Your task to perform on an android device: open app "eBay: The shopping marketplace" (install if not already installed) Image 0: 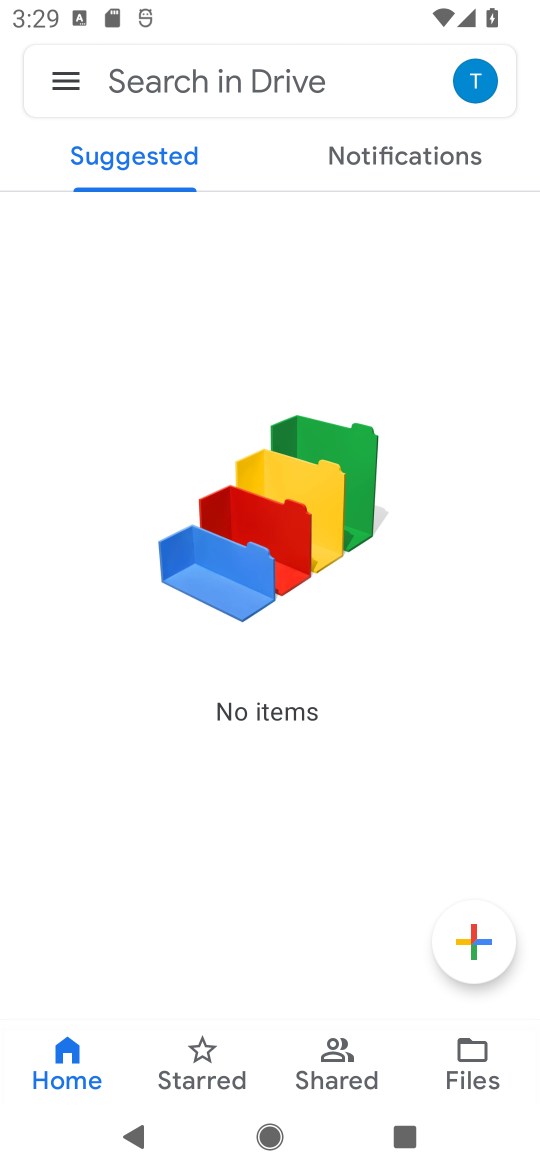
Step 0: press home button
Your task to perform on an android device: open app "eBay: The shopping marketplace" (install if not already installed) Image 1: 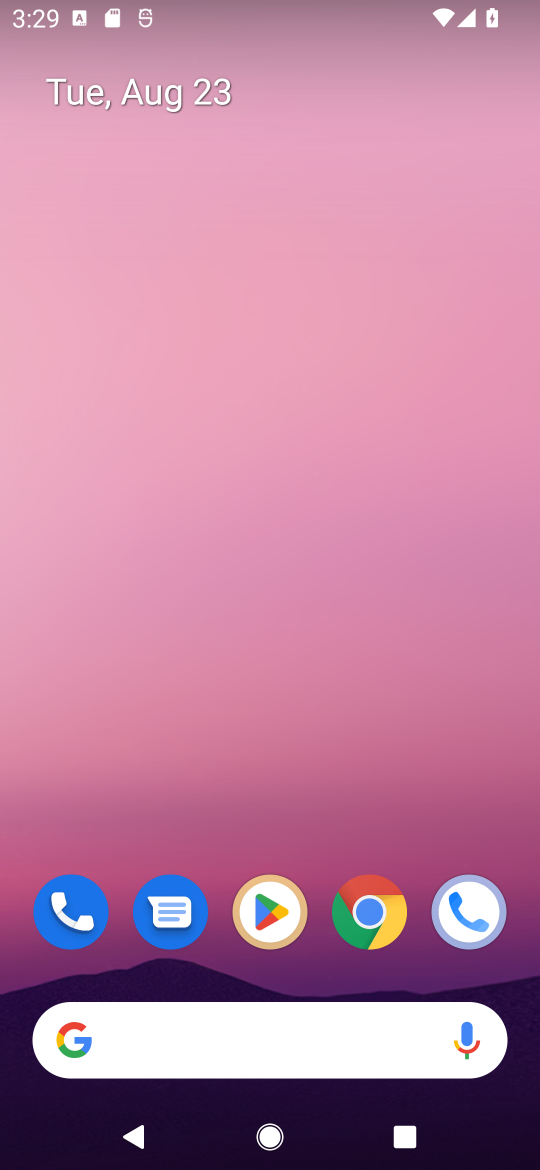
Step 1: drag from (166, 1060) to (343, 57)
Your task to perform on an android device: open app "eBay: The shopping marketplace" (install if not already installed) Image 2: 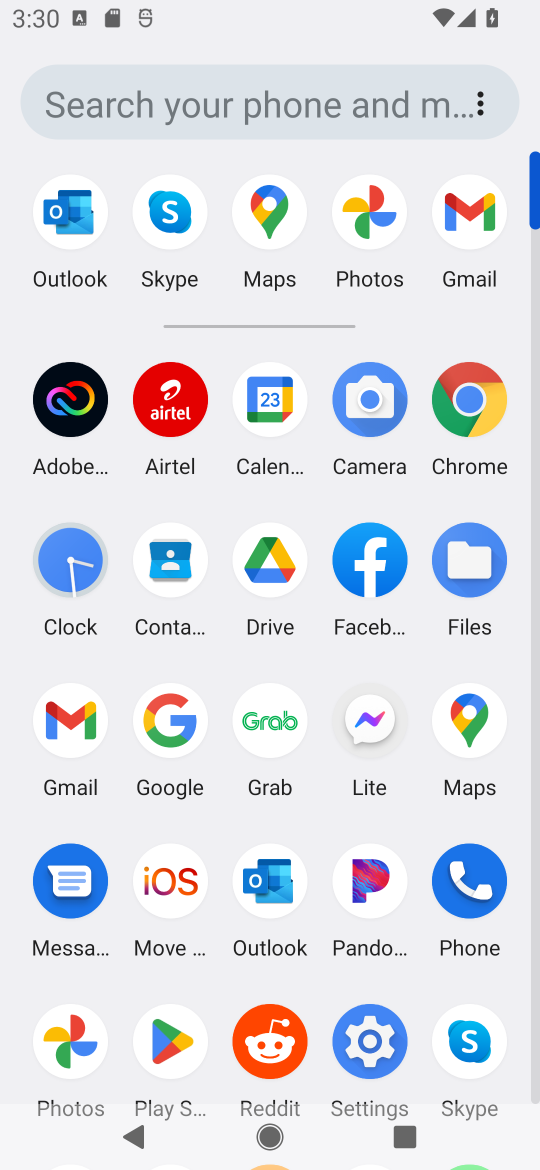
Step 2: click (170, 1045)
Your task to perform on an android device: open app "eBay: The shopping marketplace" (install if not already installed) Image 3: 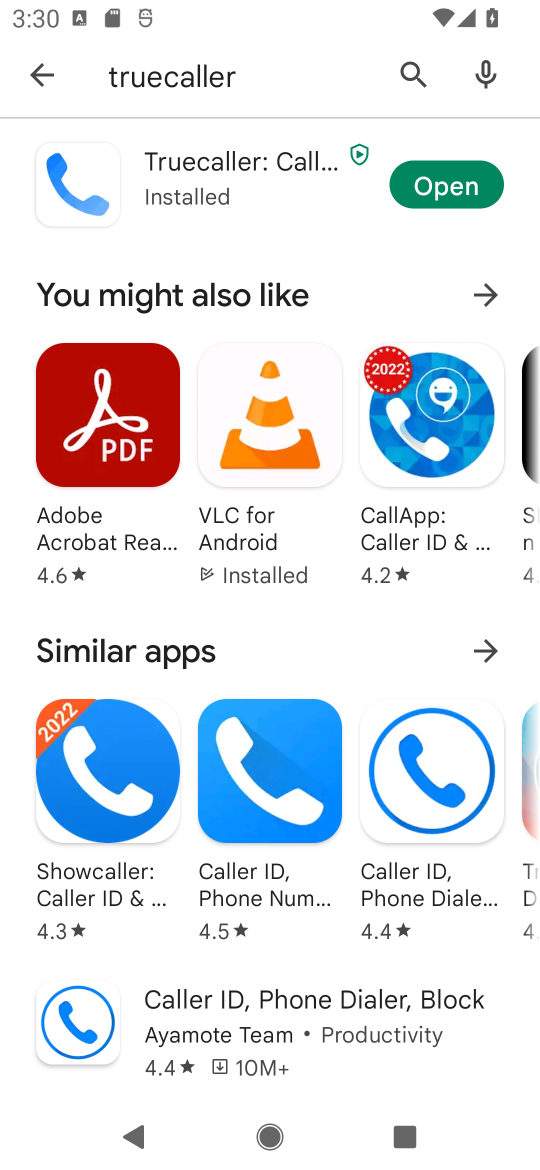
Step 3: press back button
Your task to perform on an android device: open app "eBay: The shopping marketplace" (install if not already installed) Image 4: 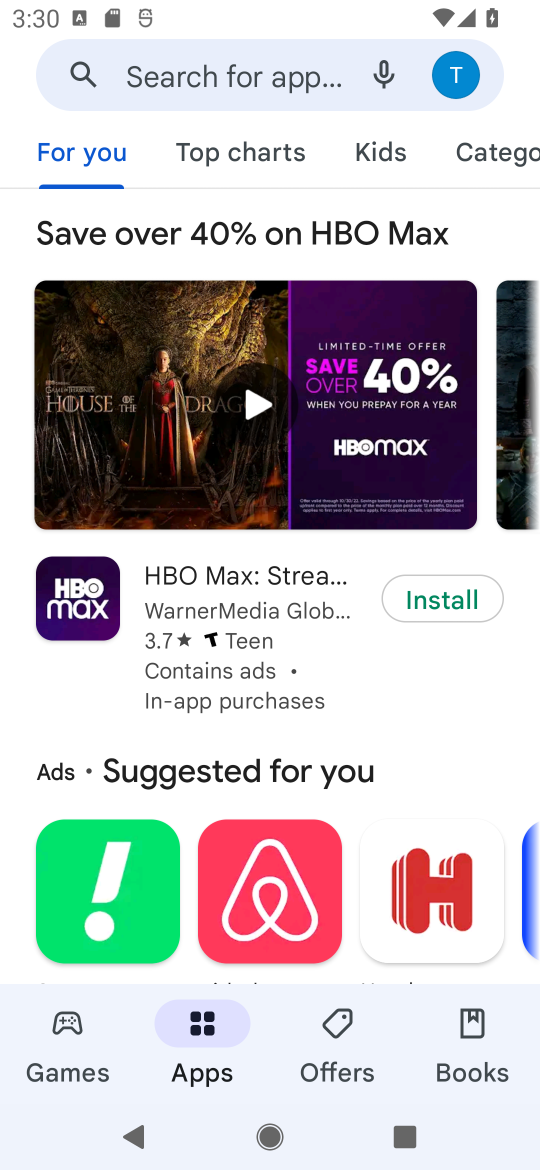
Step 4: click (190, 66)
Your task to perform on an android device: open app "eBay: The shopping marketplace" (install if not already installed) Image 5: 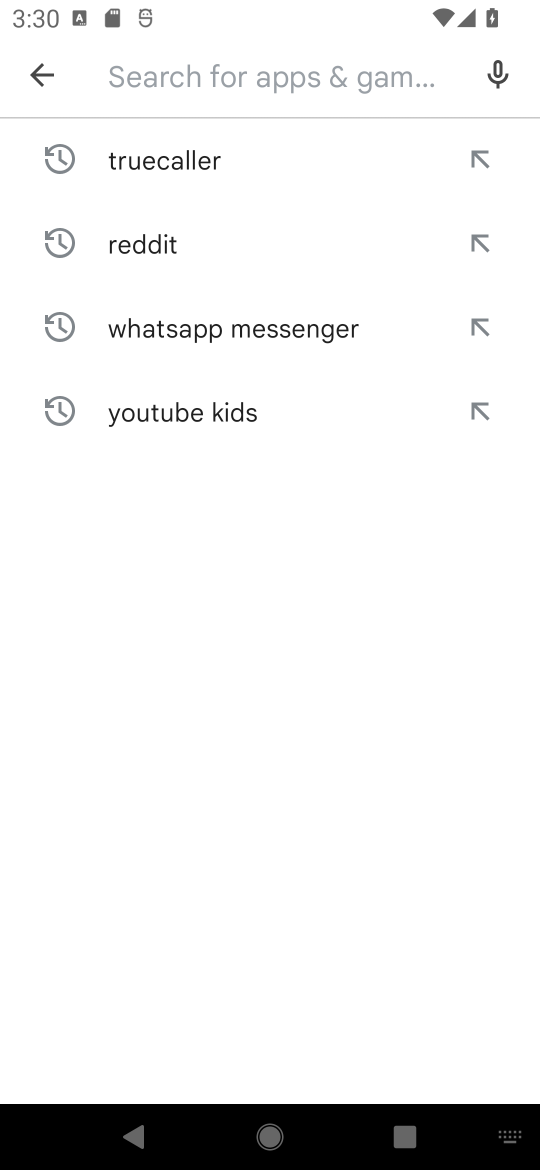
Step 5: type "eBay: The shopping marketplace"
Your task to perform on an android device: open app "eBay: The shopping marketplace" (install if not already installed) Image 6: 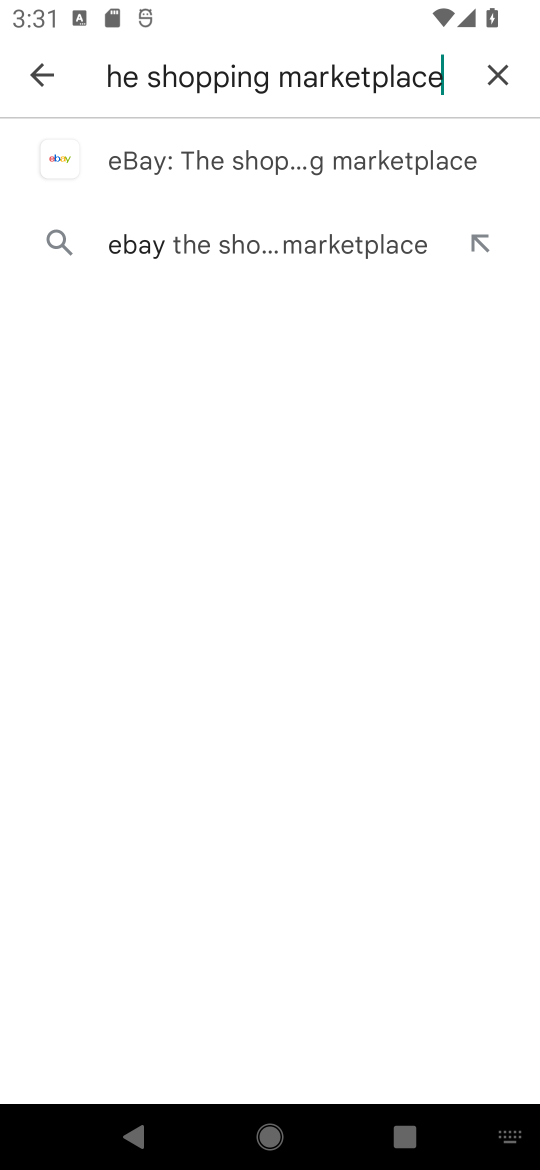
Step 6: click (360, 167)
Your task to perform on an android device: open app "eBay: The shopping marketplace" (install if not already installed) Image 7: 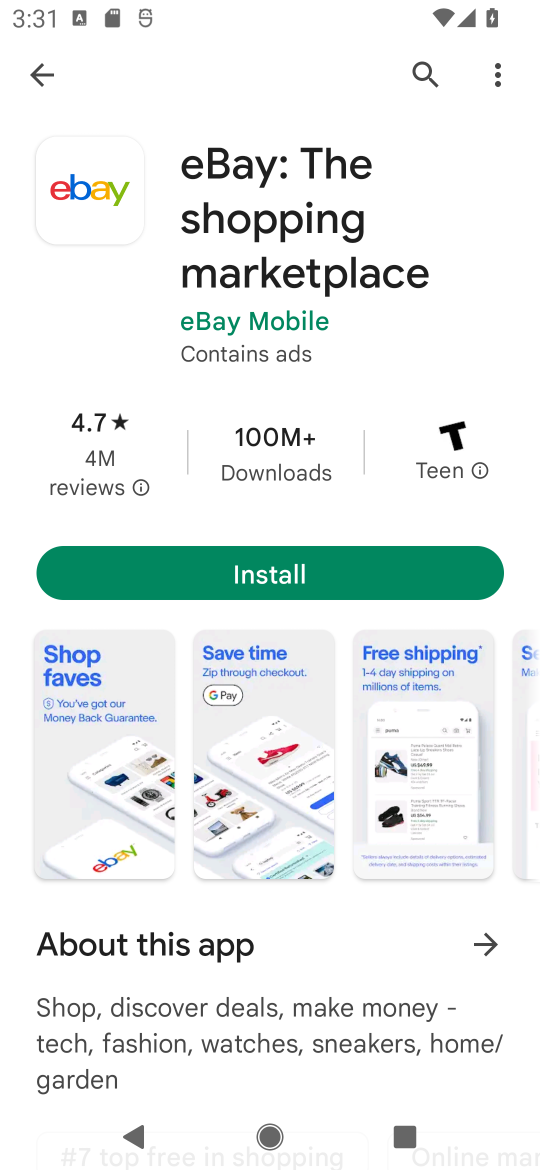
Step 7: click (334, 576)
Your task to perform on an android device: open app "eBay: The shopping marketplace" (install if not already installed) Image 8: 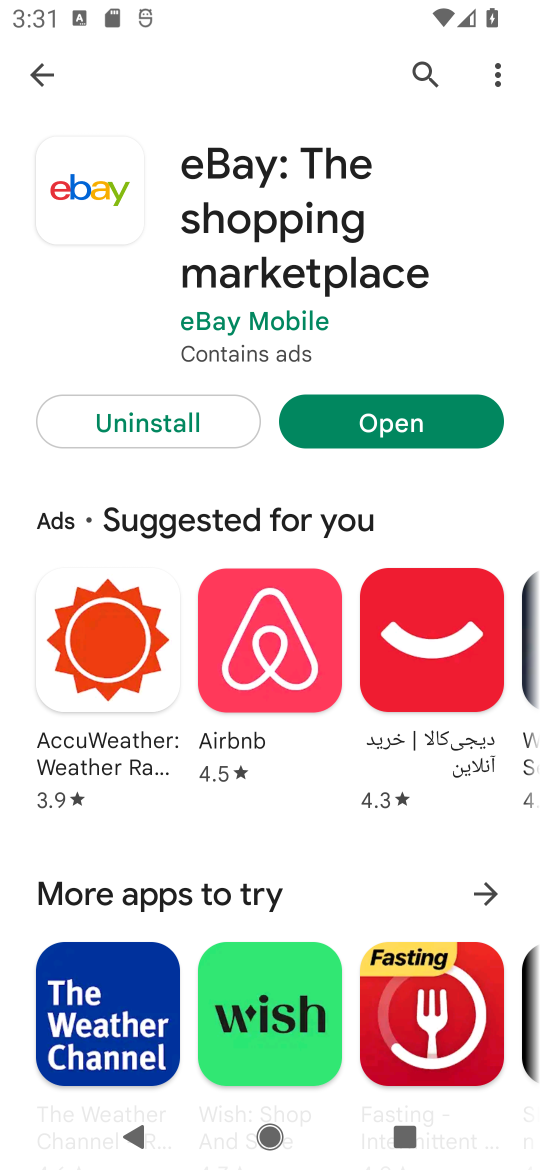
Step 8: click (389, 426)
Your task to perform on an android device: open app "eBay: The shopping marketplace" (install if not already installed) Image 9: 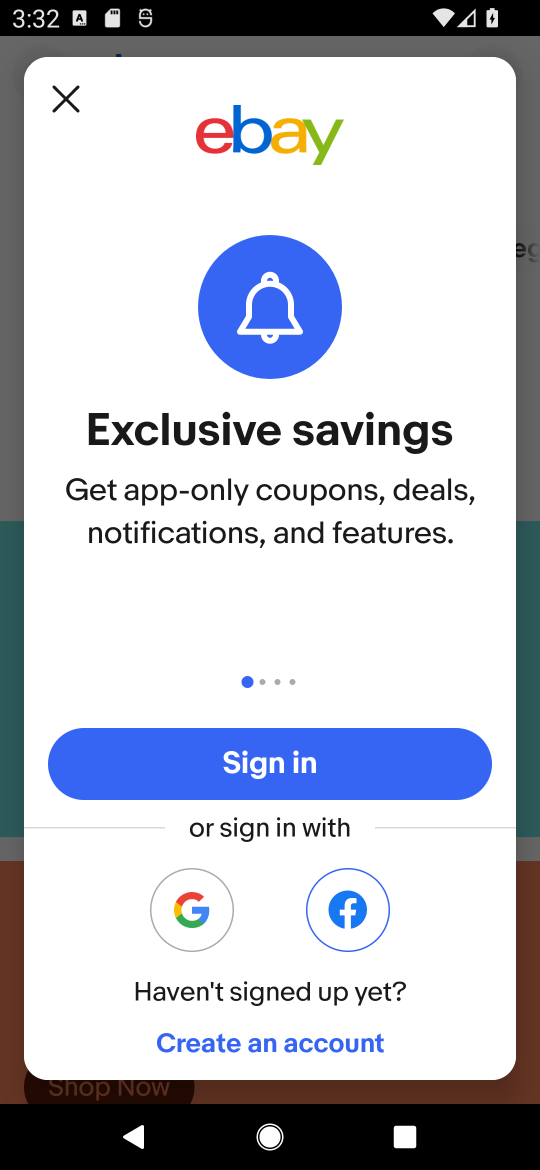
Step 9: task complete